Your task to perform on an android device: Check the weather Image 0: 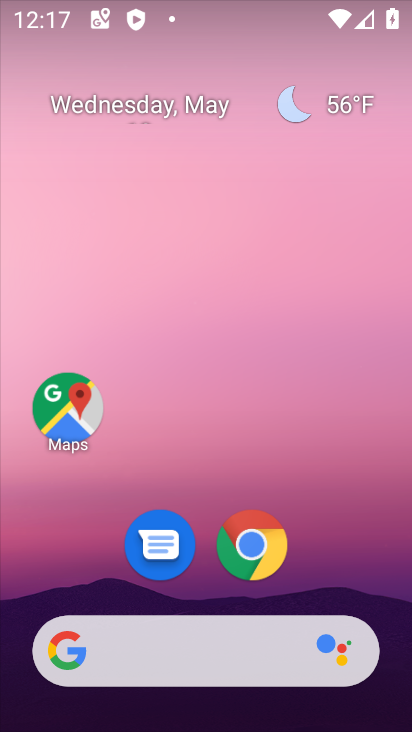
Step 0: drag from (337, 567) to (307, 67)
Your task to perform on an android device: Check the weather Image 1: 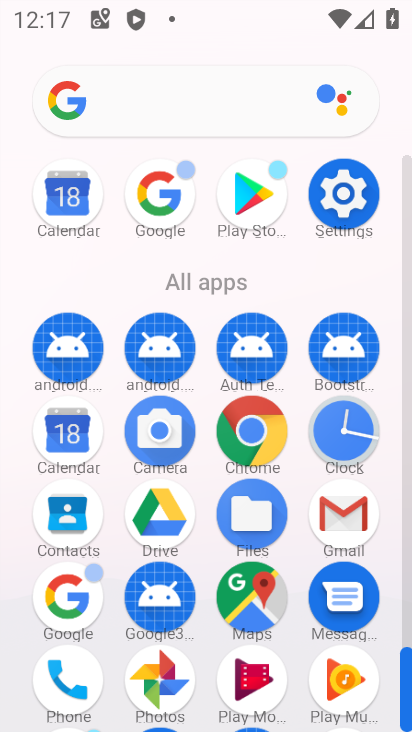
Step 1: click (152, 193)
Your task to perform on an android device: Check the weather Image 2: 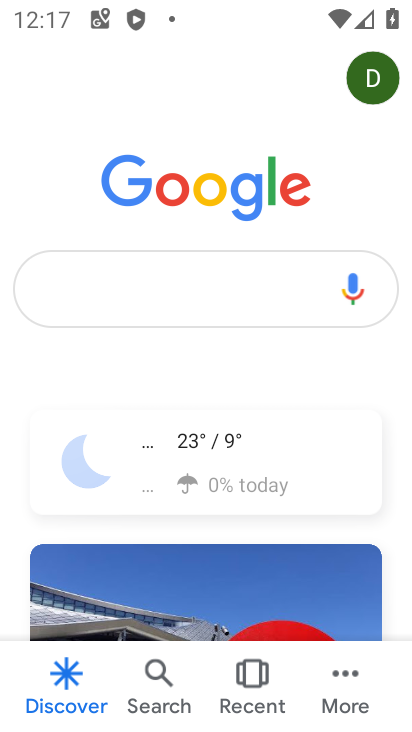
Step 2: click (205, 445)
Your task to perform on an android device: Check the weather Image 3: 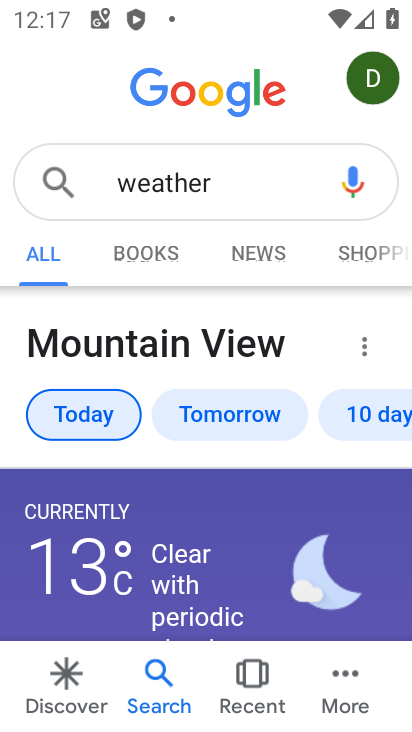
Step 3: task complete